Your task to perform on an android device: choose inbox layout in the gmail app Image 0: 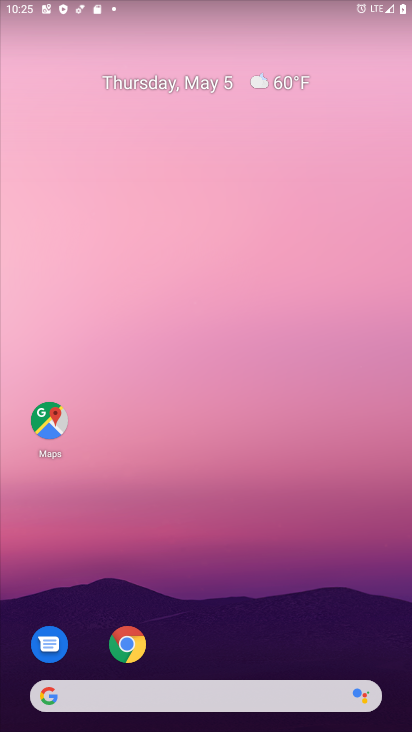
Step 0: drag from (234, 586) to (219, 30)
Your task to perform on an android device: choose inbox layout in the gmail app Image 1: 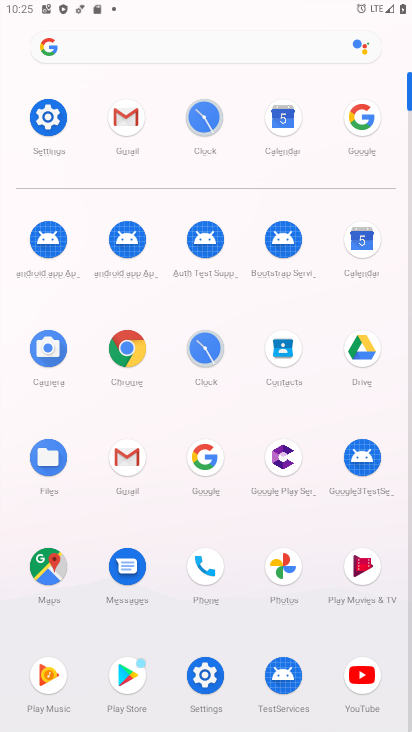
Step 1: click (126, 128)
Your task to perform on an android device: choose inbox layout in the gmail app Image 2: 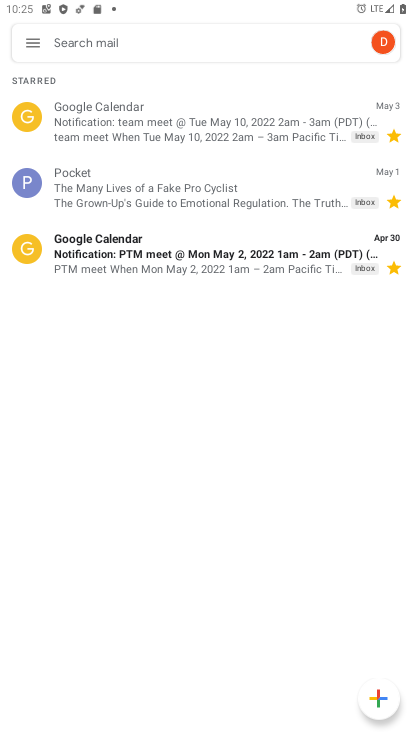
Step 2: click (43, 29)
Your task to perform on an android device: choose inbox layout in the gmail app Image 3: 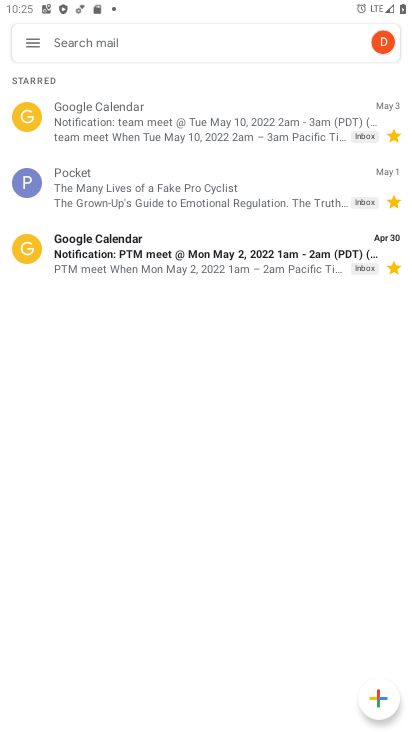
Step 3: click (41, 44)
Your task to perform on an android device: choose inbox layout in the gmail app Image 4: 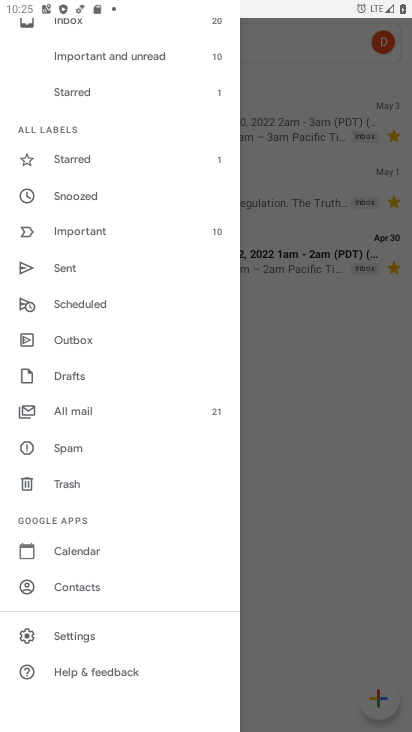
Step 4: drag from (135, 235) to (133, 426)
Your task to perform on an android device: choose inbox layout in the gmail app Image 5: 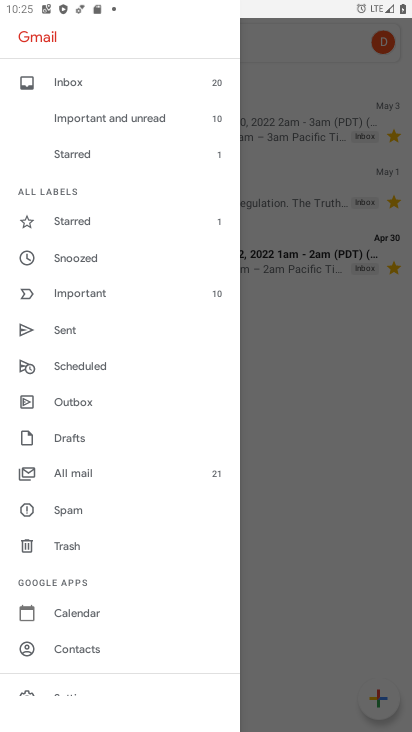
Step 5: click (74, 85)
Your task to perform on an android device: choose inbox layout in the gmail app Image 6: 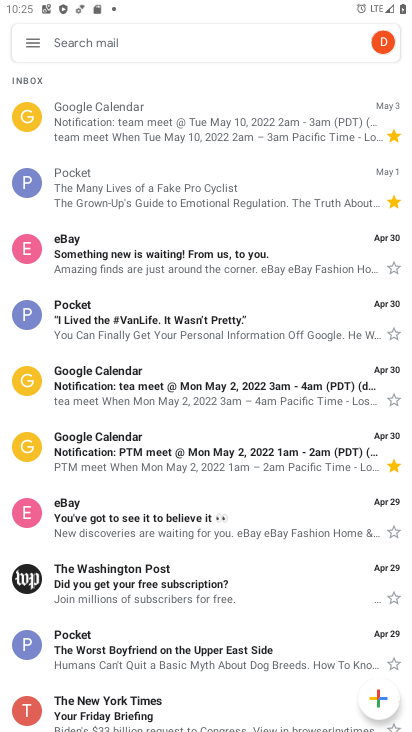
Step 6: task complete